Your task to perform on an android device: Open Yahoo.com Image 0: 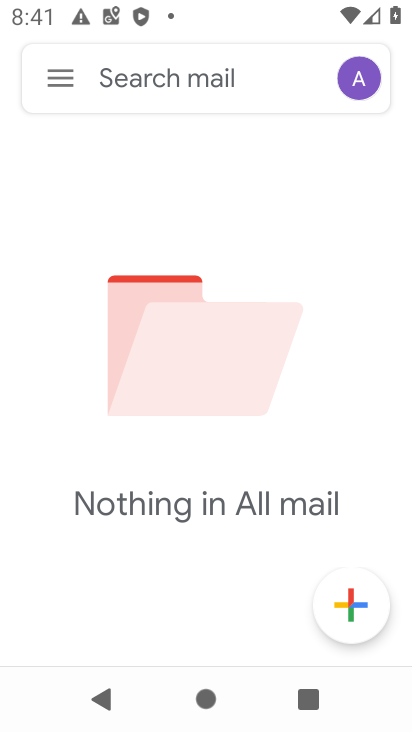
Step 0: press home button
Your task to perform on an android device: Open Yahoo.com Image 1: 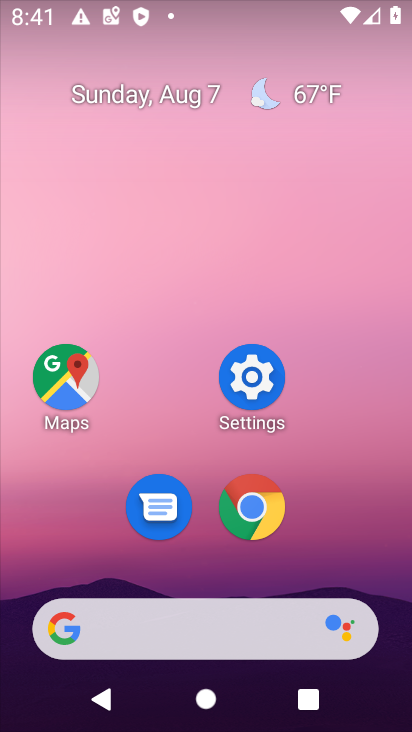
Step 1: click (252, 506)
Your task to perform on an android device: Open Yahoo.com Image 2: 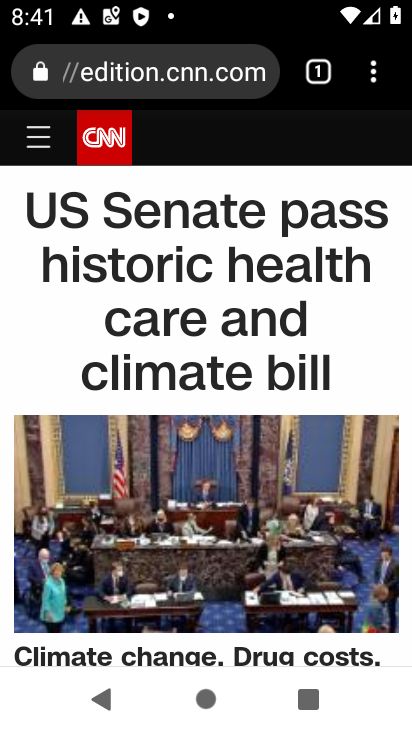
Step 2: drag from (376, 68) to (213, 508)
Your task to perform on an android device: Open Yahoo.com Image 3: 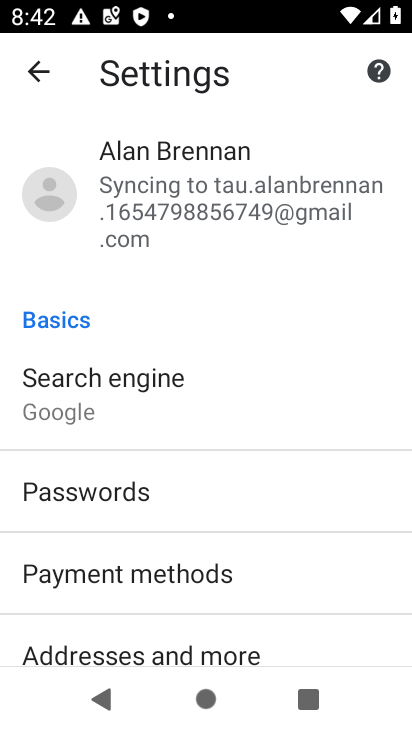
Step 3: click (39, 61)
Your task to perform on an android device: Open Yahoo.com Image 4: 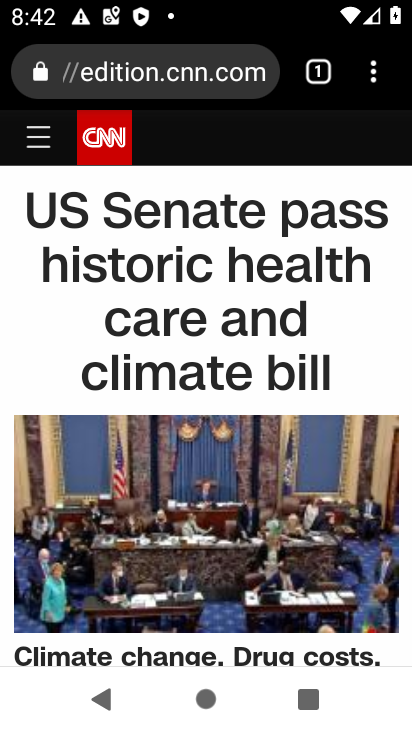
Step 4: drag from (375, 63) to (196, 142)
Your task to perform on an android device: Open Yahoo.com Image 5: 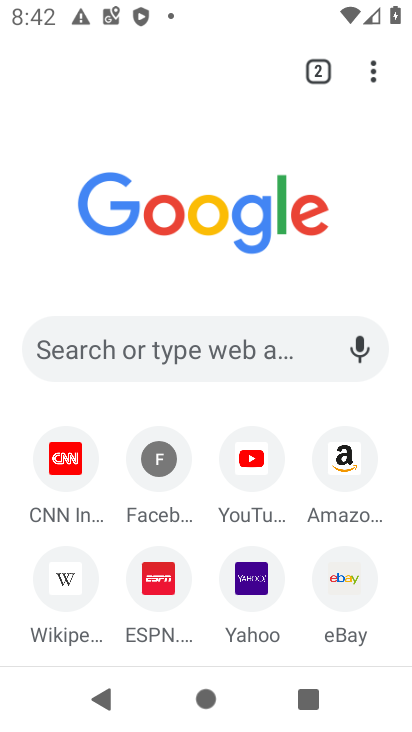
Step 5: click (259, 583)
Your task to perform on an android device: Open Yahoo.com Image 6: 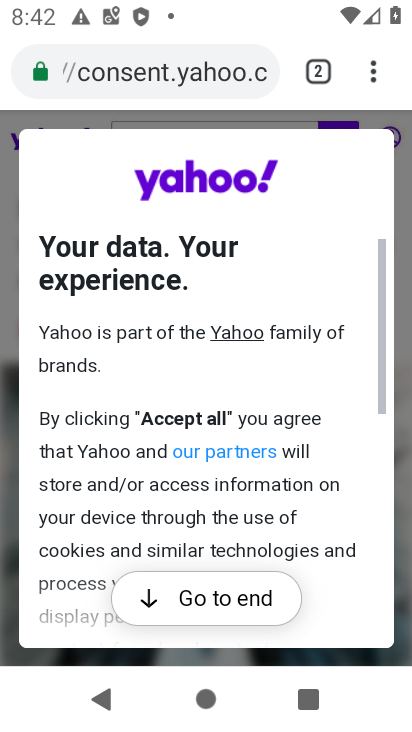
Step 6: drag from (213, 601) to (339, 193)
Your task to perform on an android device: Open Yahoo.com Image 7: 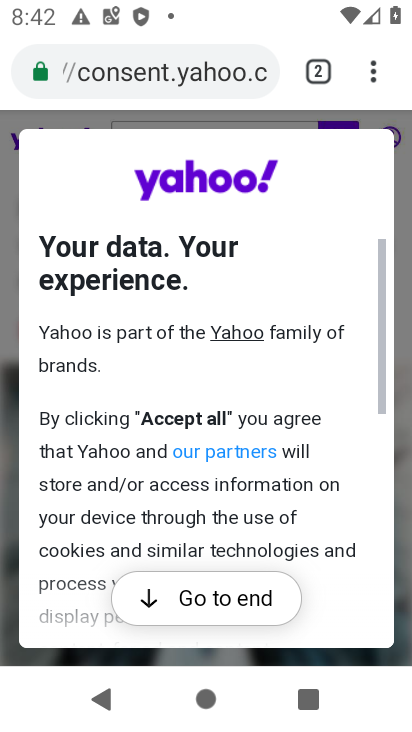
Step 7: click (202, 596)
Your task to perform on an android device: Open Yahoo.com Image 8: 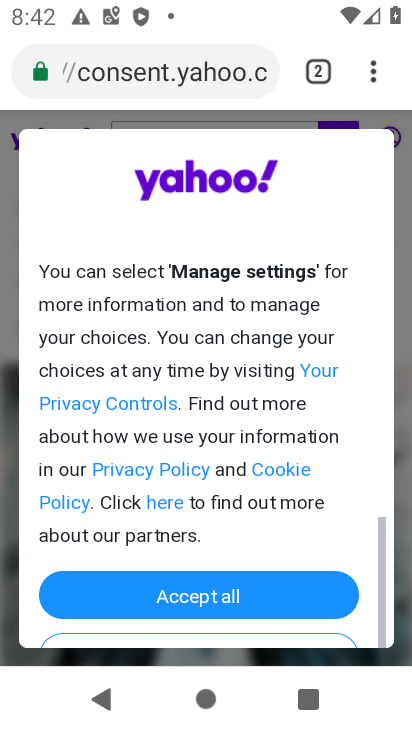
Step 8: click (202, 600)
Your task to perform on an android device: Open Yahoo.com Image 9: 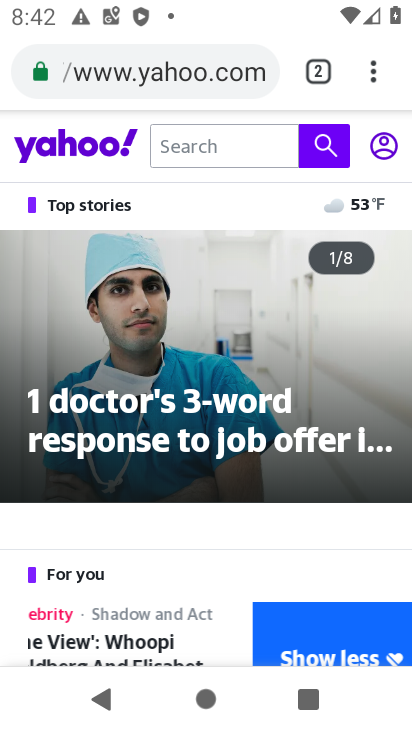
Step 9: task complete